Your task to perform on an android device: Search for "bose quietcomfort 35" on costco, select the first entry, add it to the cart, then select checkout. Image 0: 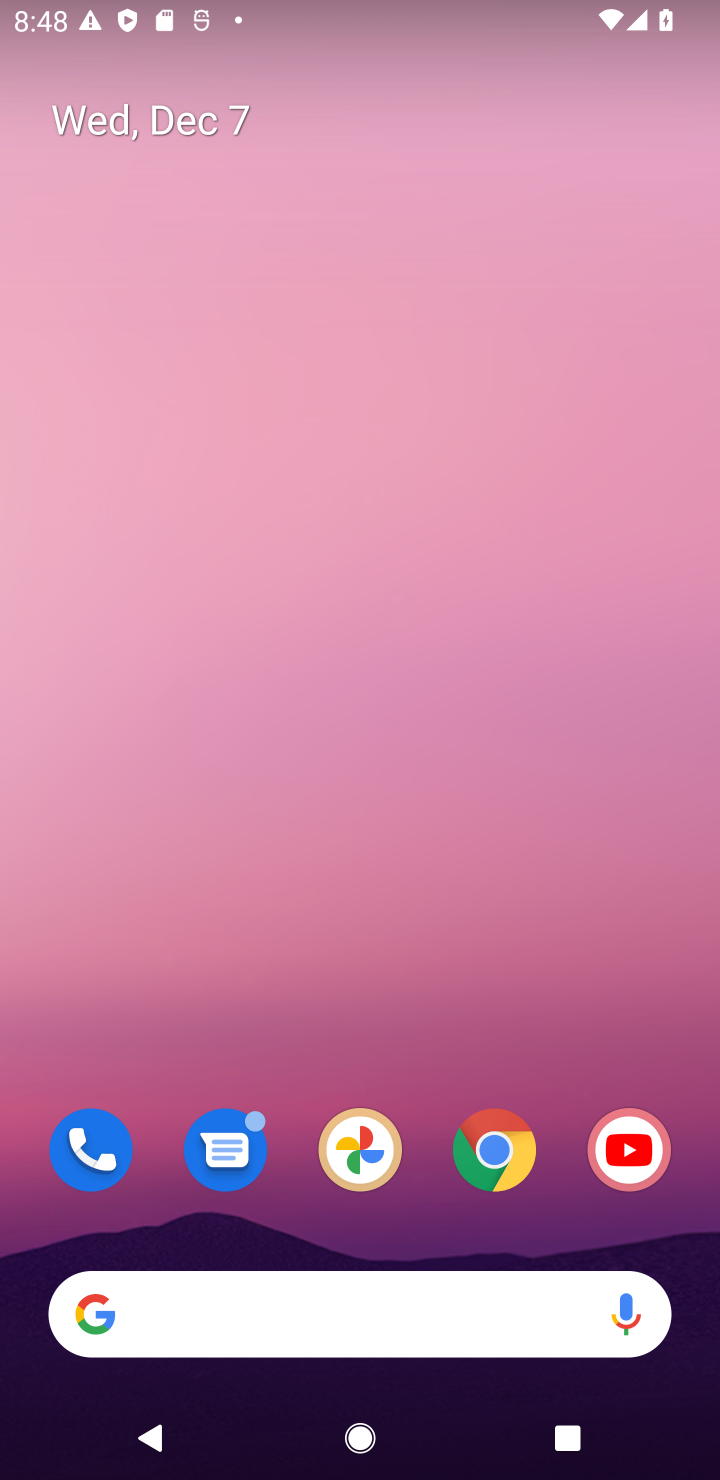
Step 0: task complete